Your task to perform on an android device: check out phone information Image 0: 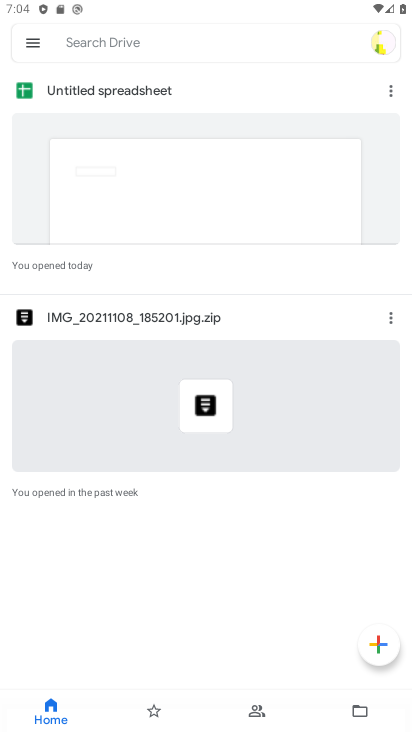
Step 0: press home button
Your task to perform on an android device: check out phone information Image 1: 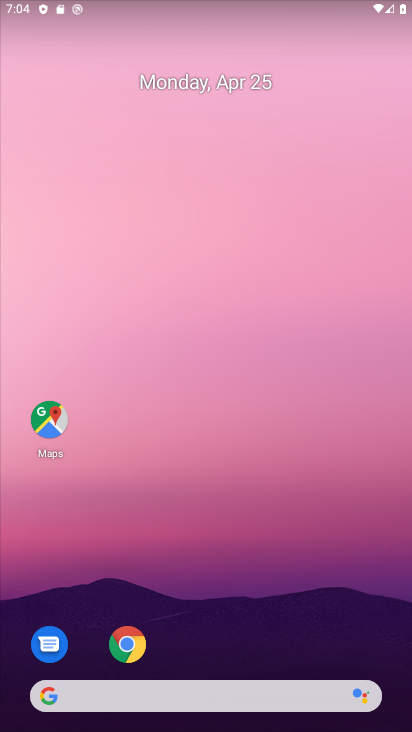
Step 1: drag from (292, 555) to (292, 123)
Your task to perform on an android device: check out phone information Image 2: 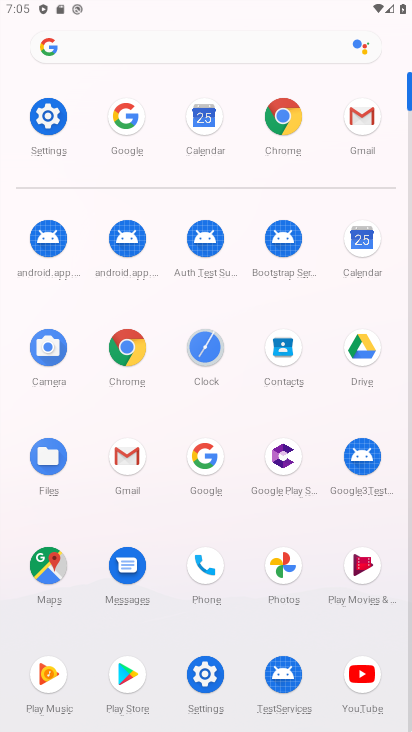
Step 2: click (54, 119)
Your task to perform on an android device: check out phone information Image 3: 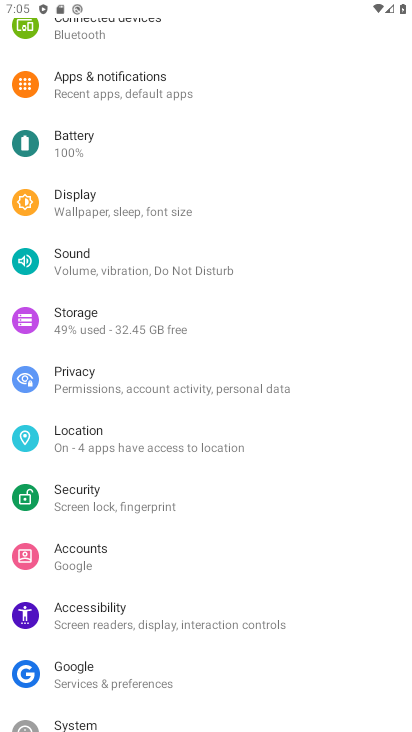
Step 3: drag from (260, 624) to (271, 223)
Your task to perform on an android device: check out phone information Image 4: 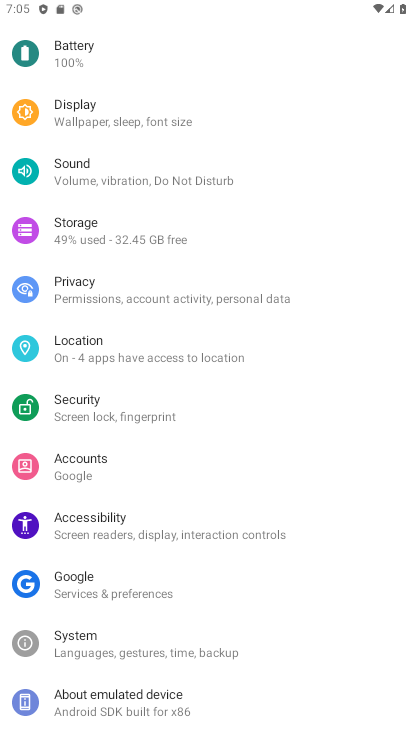
Step 4: click (218, 694)
Your task to perform on an android device: check out phone information Image 5: 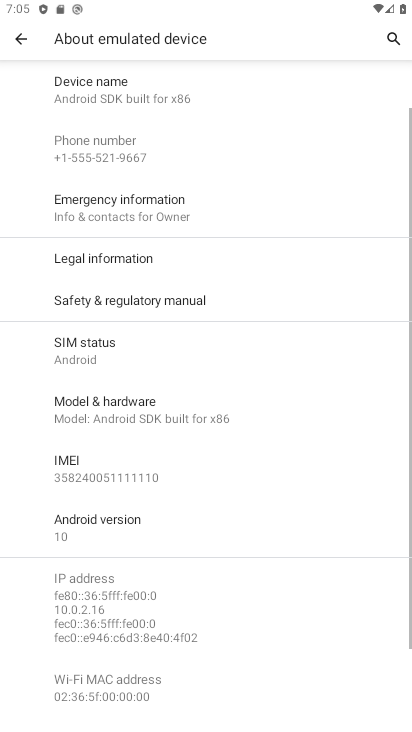
Step 5: click (133, 414)
Your task to perform on an android device: check out phone information Image 6: 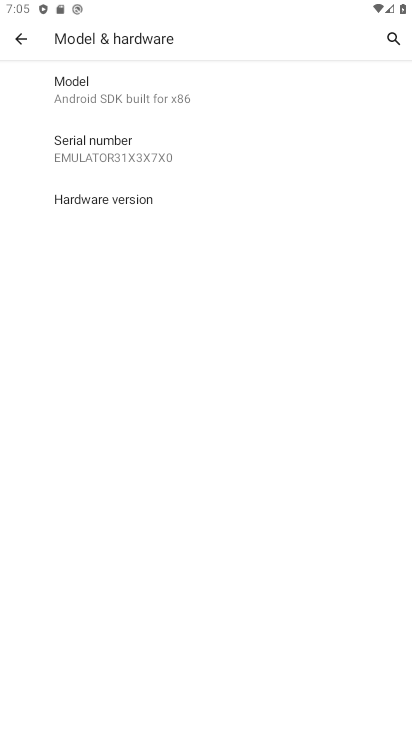
Step 6: task complete